Your task to perform on an android device: Open Youtube and go to the subscriptions tab Image 0: 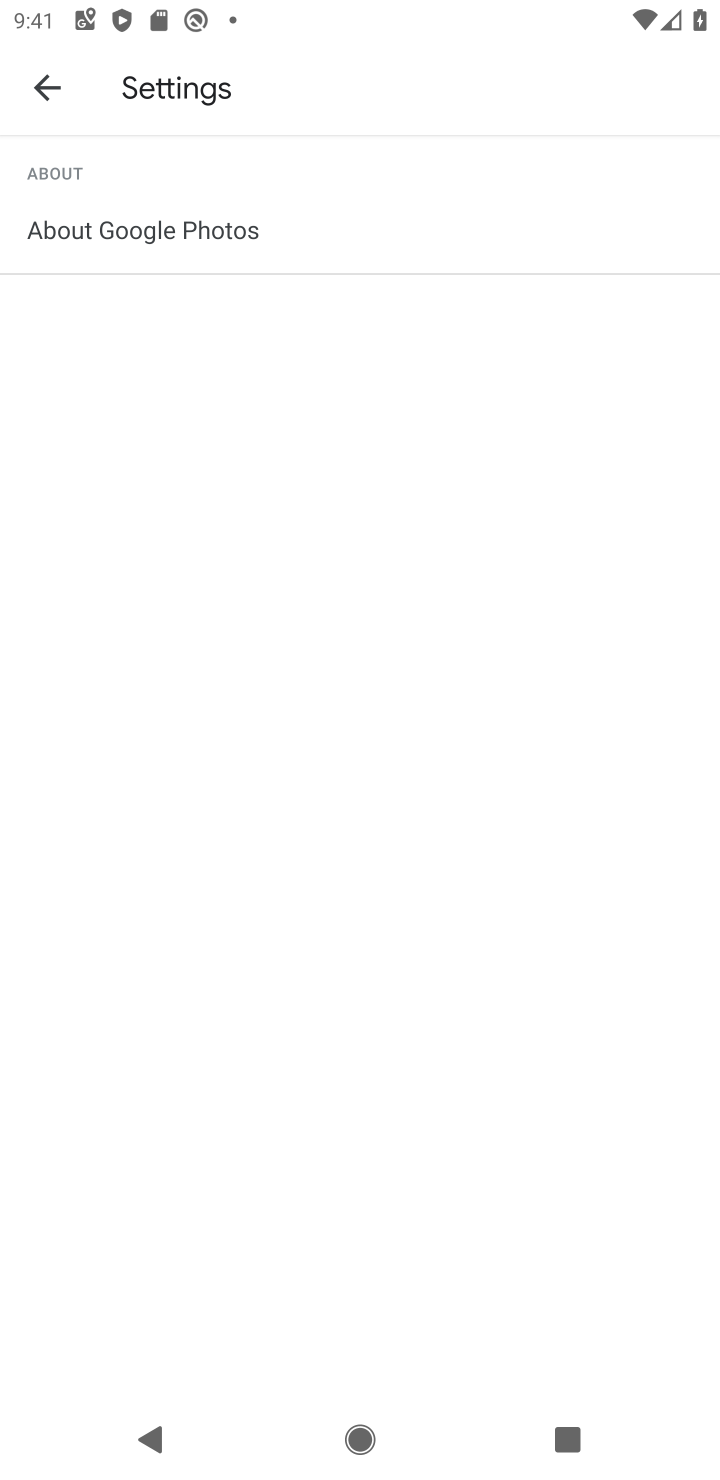
Step 0: press home button
Your task to perform on an android device: Open Youtube and go to the subscriptions tab Image 1: 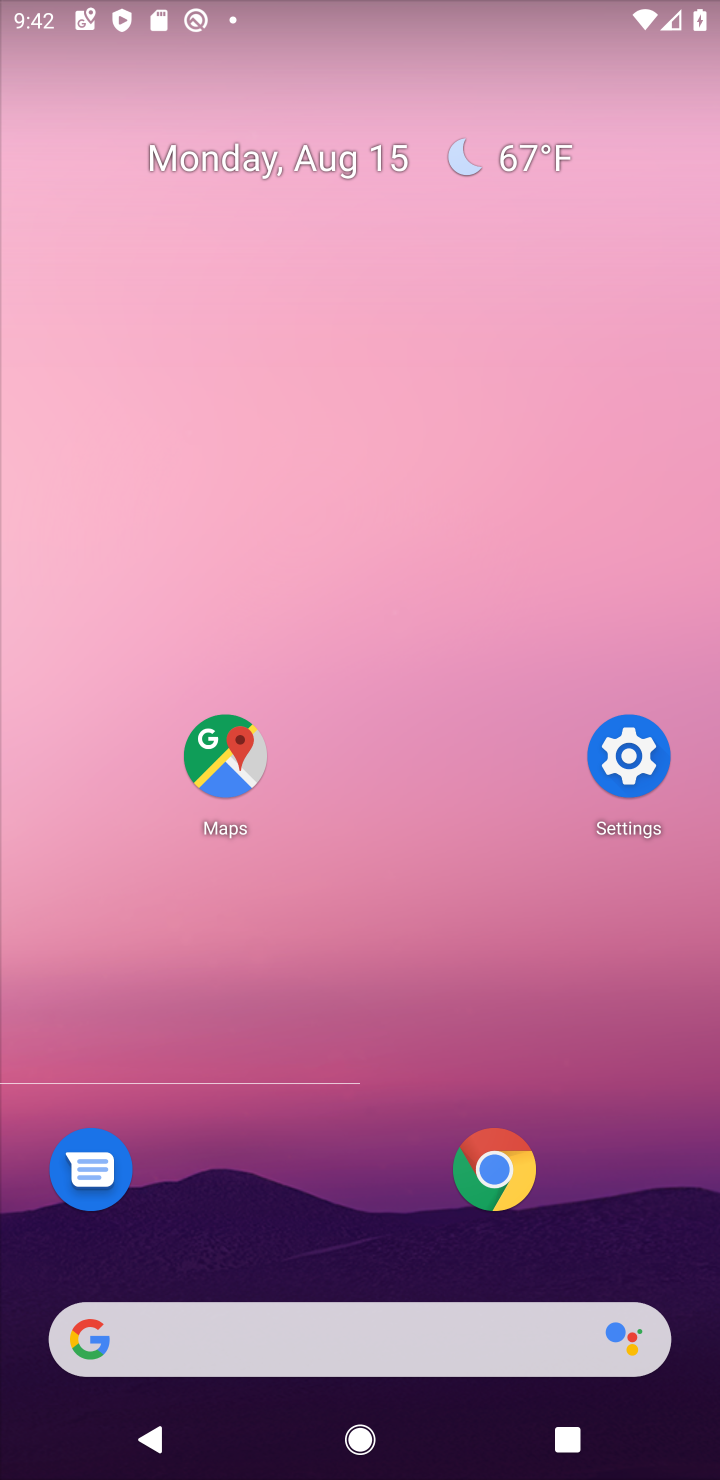
Step 1: press home button
Your task to perform on an android device: Open Youtube and go to the subscriptions tab Image 2: 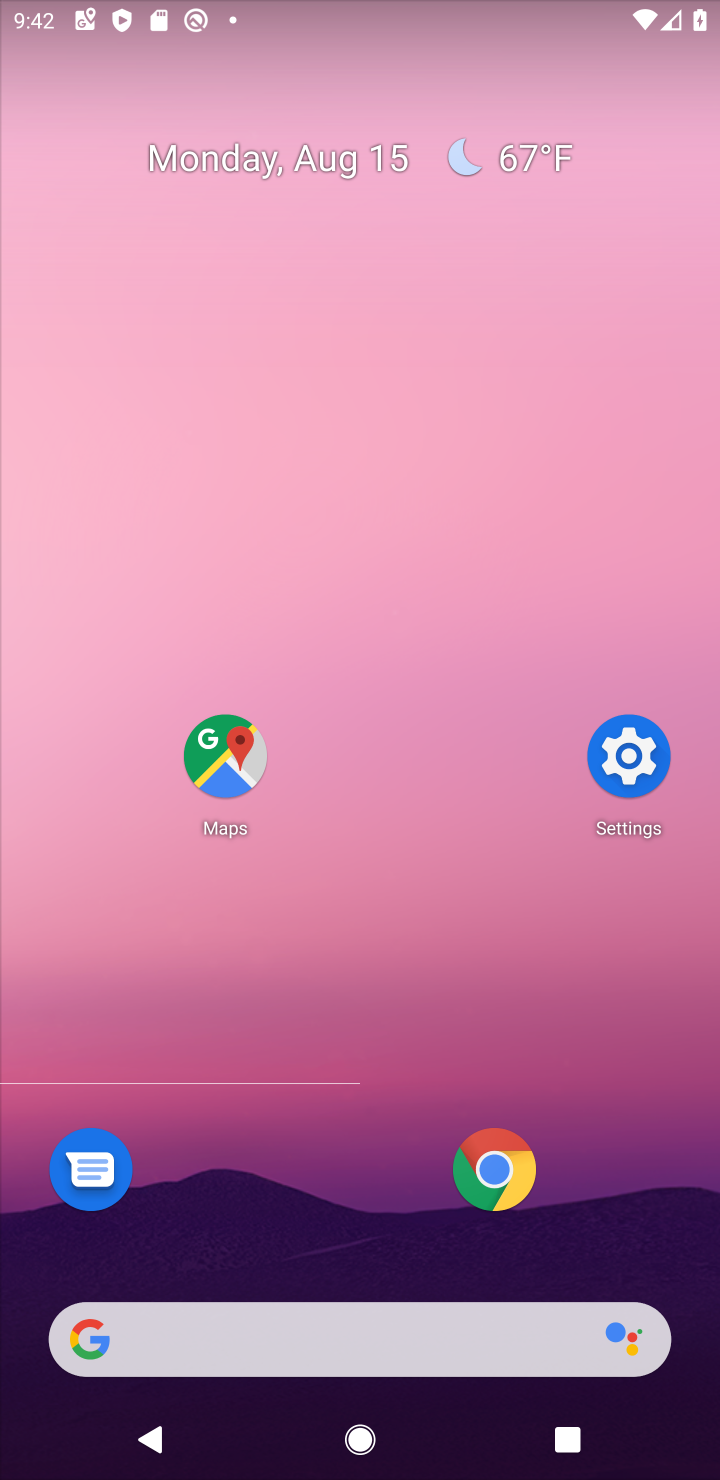
Step 2: drag from (337, 1256) to (642, 214)
Your task to perform on an android device: Open Youtube and go to the subscriptions tab Image 3: 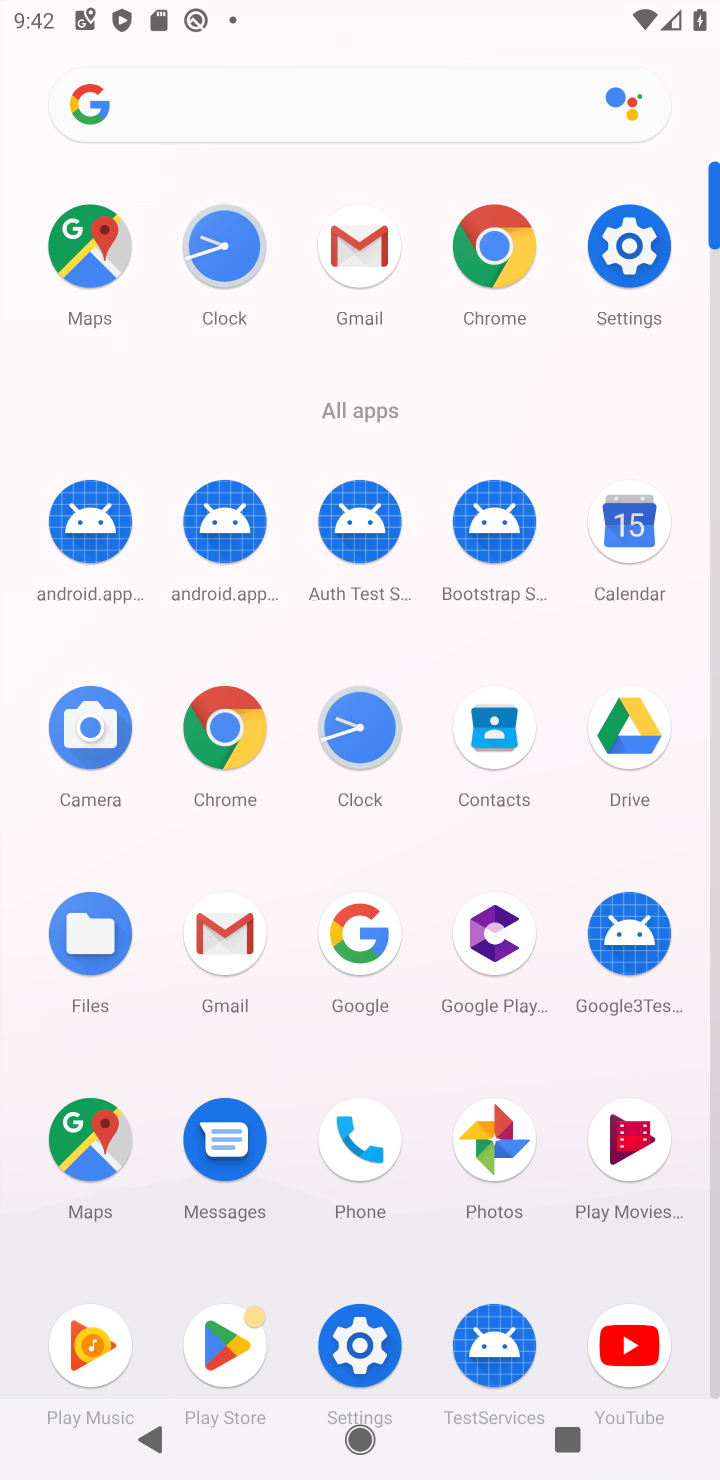
Step 3: click (633, 1349)
Your task to perform on an android device: Open Youtube and go to the subscriptions tab Image 4: 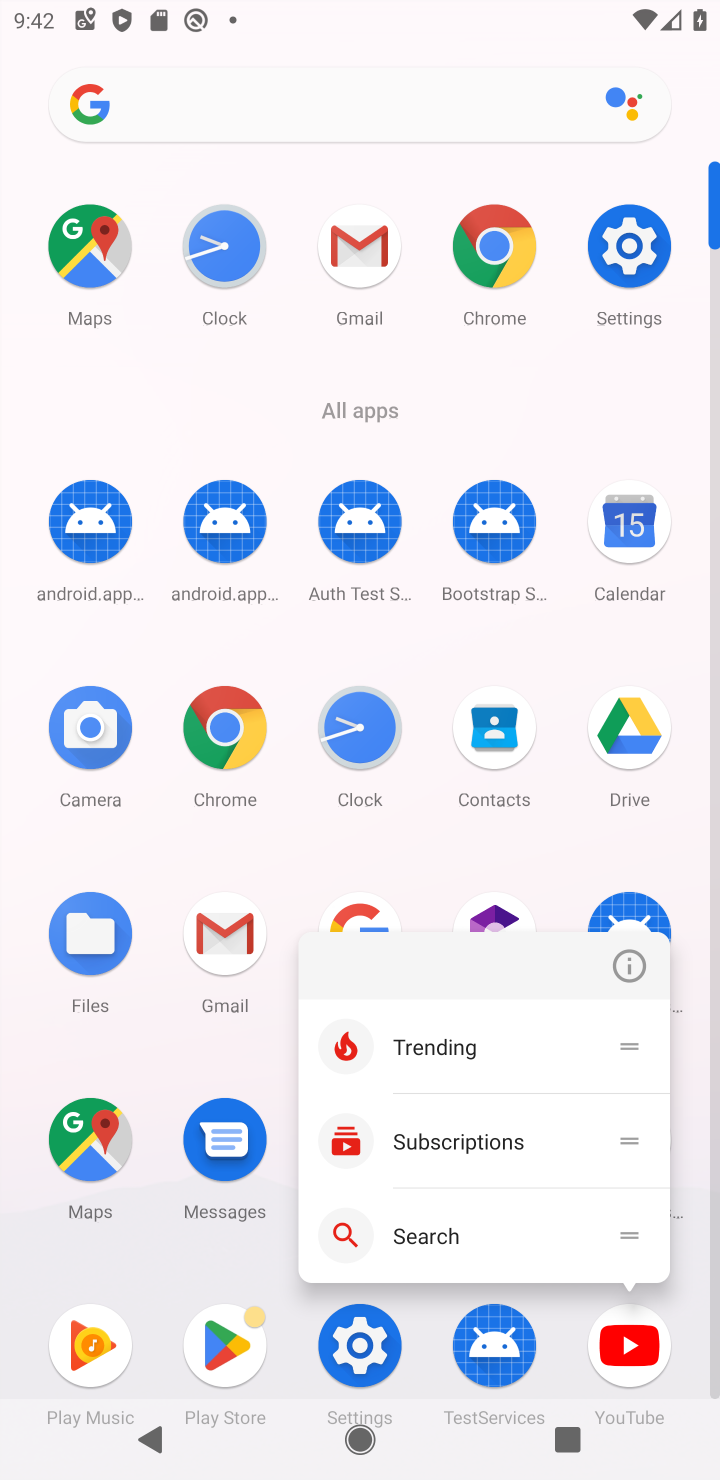
Step 4: click (633, 1349)
Your task to perform on an android device: Open Youtube and go to the subscriptions tab Image 5: 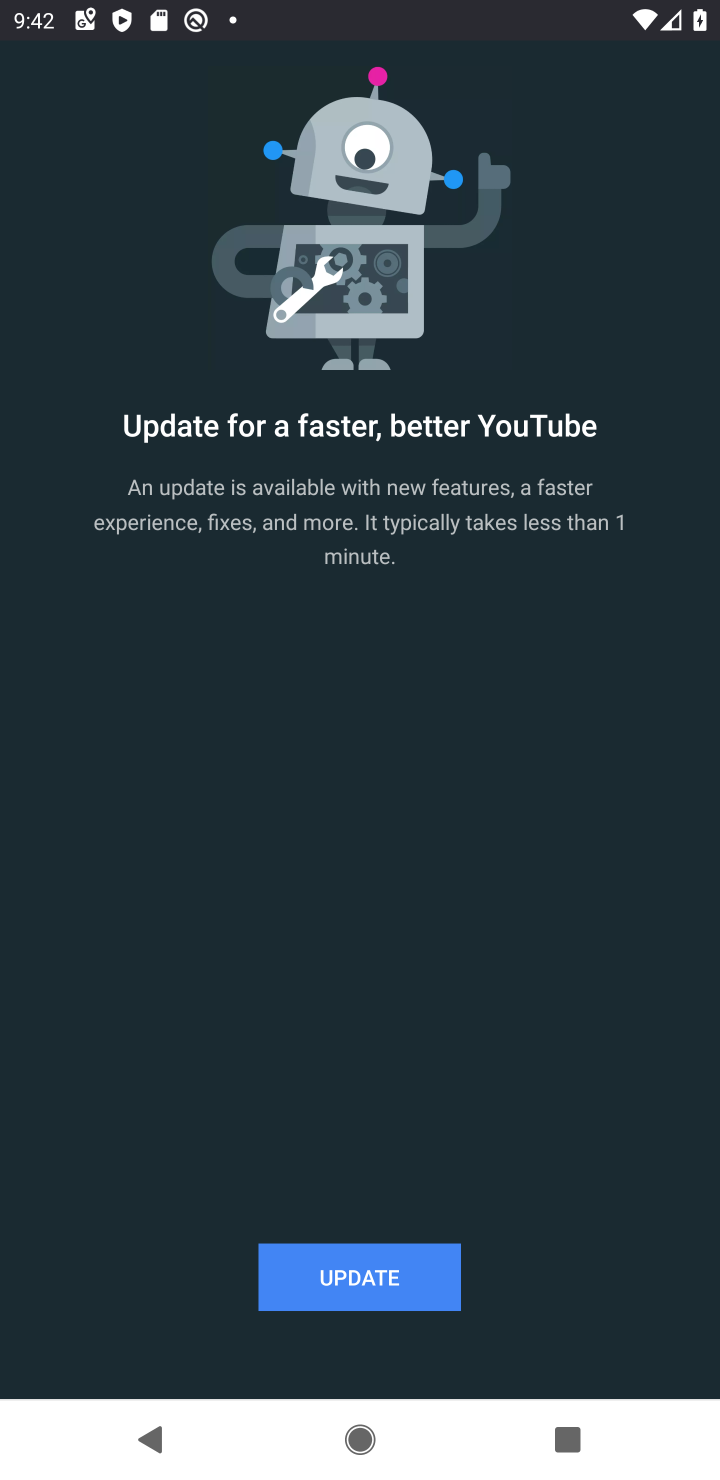
Step 5: click (376, 1281)
Your task to perform on an android device: Open Youtube and go to the subscriptions tab Image 6: 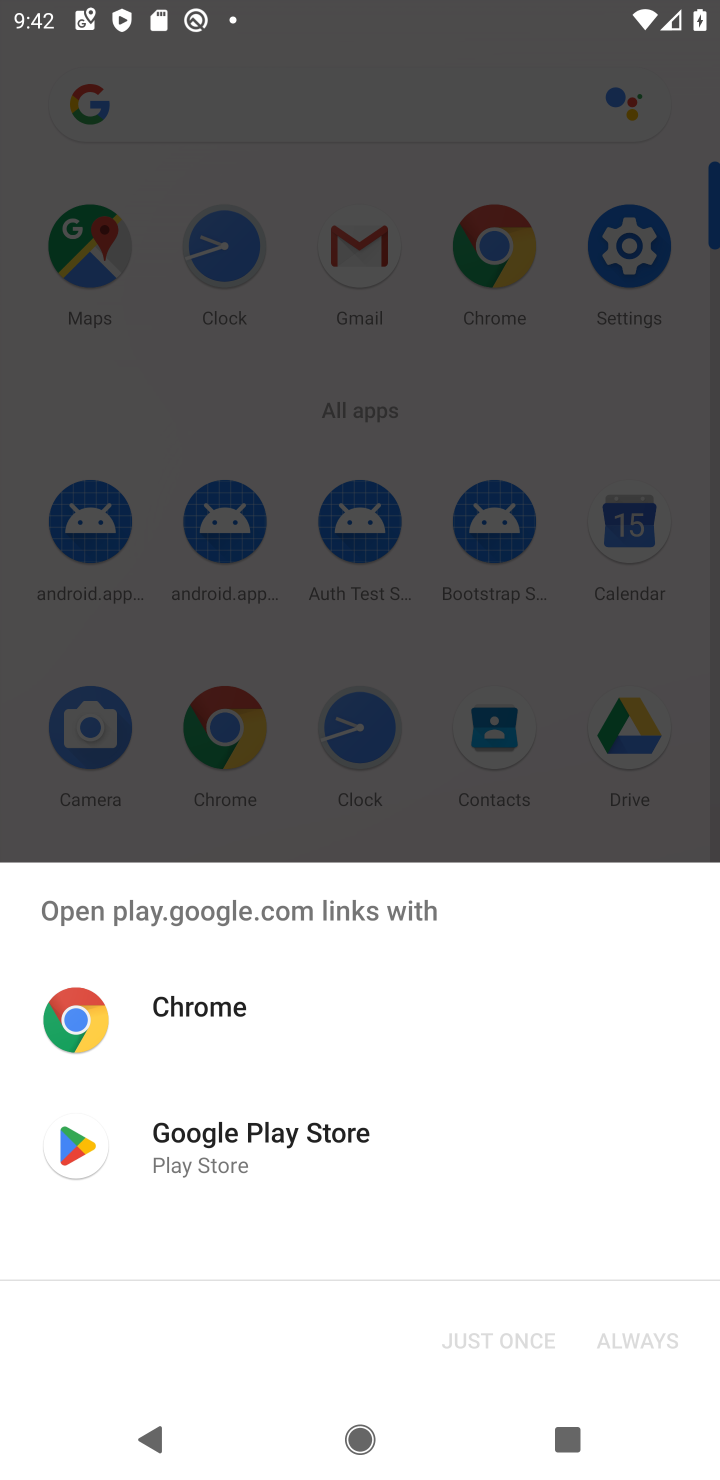
Step 6: click (301, 1137)
Your task to perform on an android device: Open Youtube and go to the subscriptions tab Image 7: 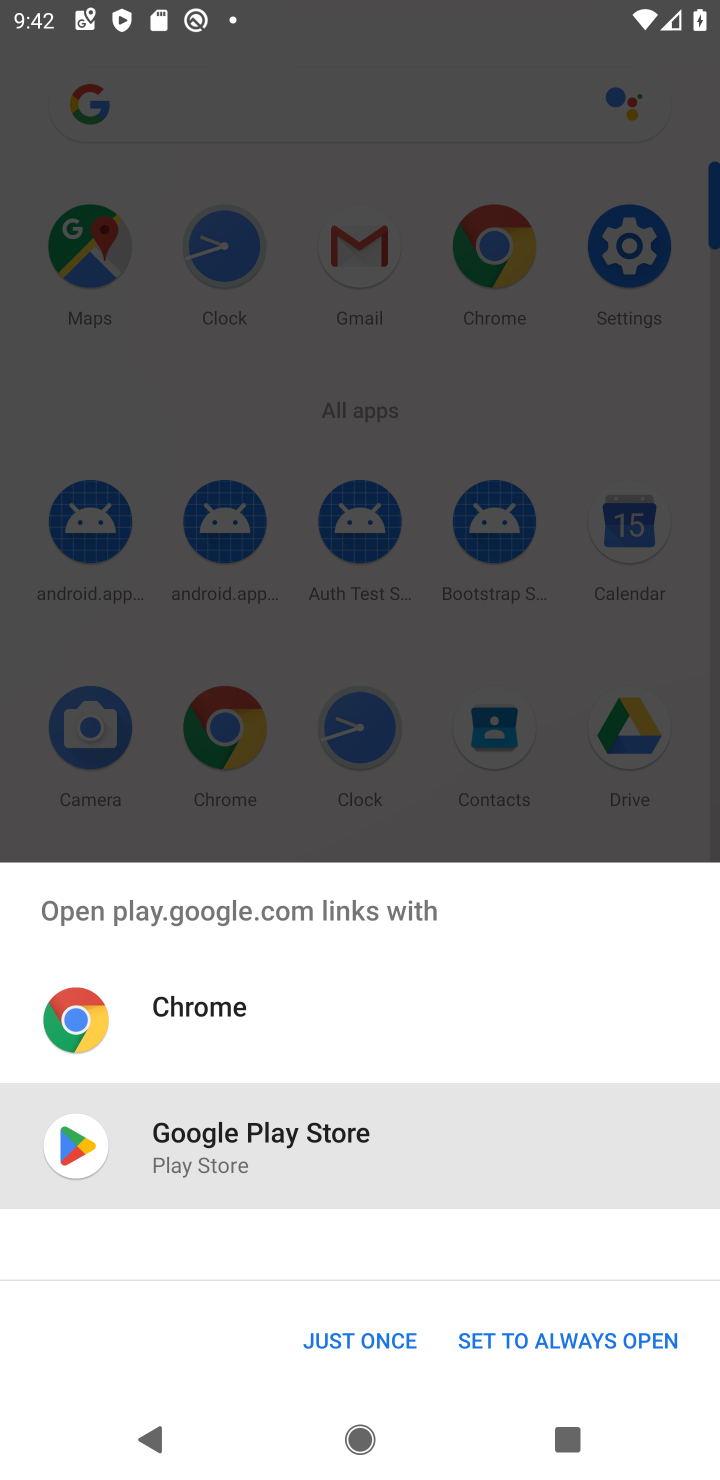
Step 7: click (383, 1334)
Your task to perform on an android device: Open Youtube and go to the subscriptions tab Image 8: 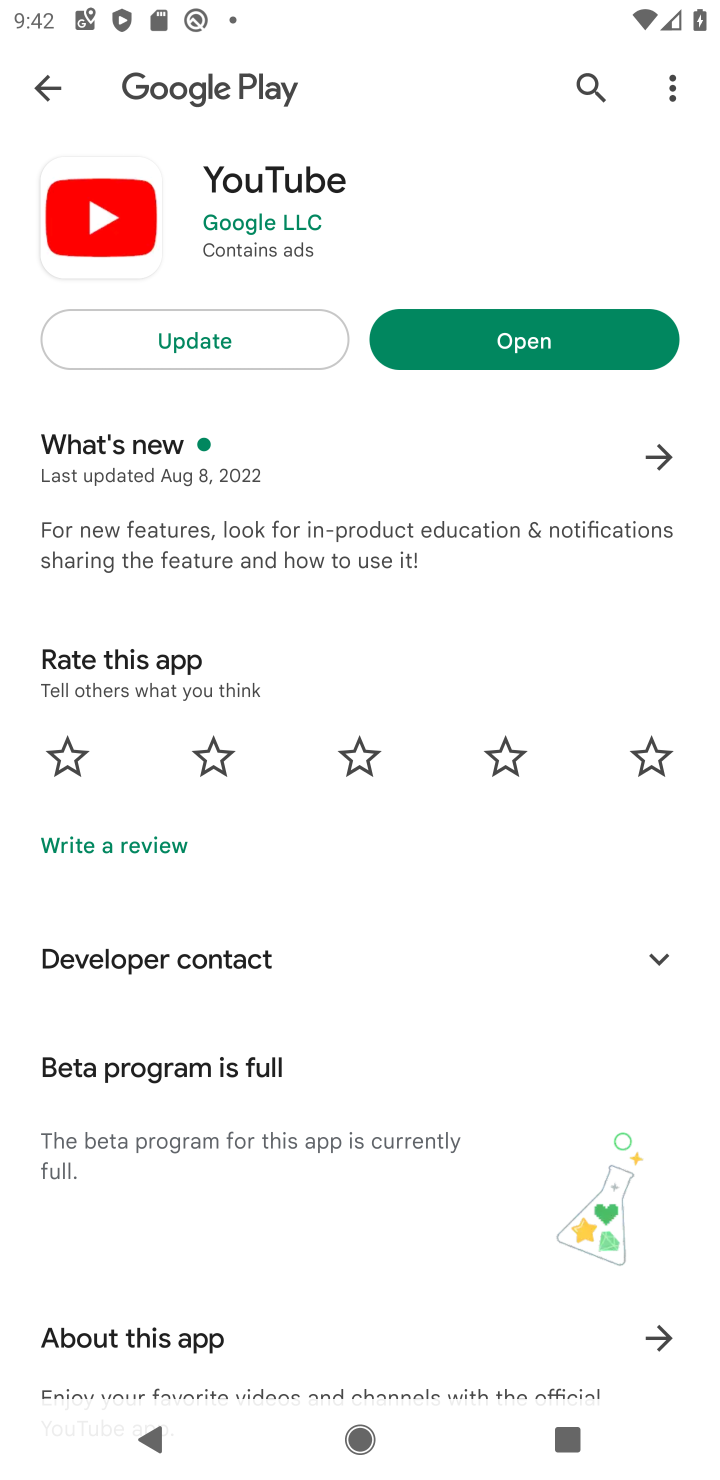
Step 8: click (542, 337)
Your task to perform on an android device: Open Youtube and go to the subscriptions tab Image 9: 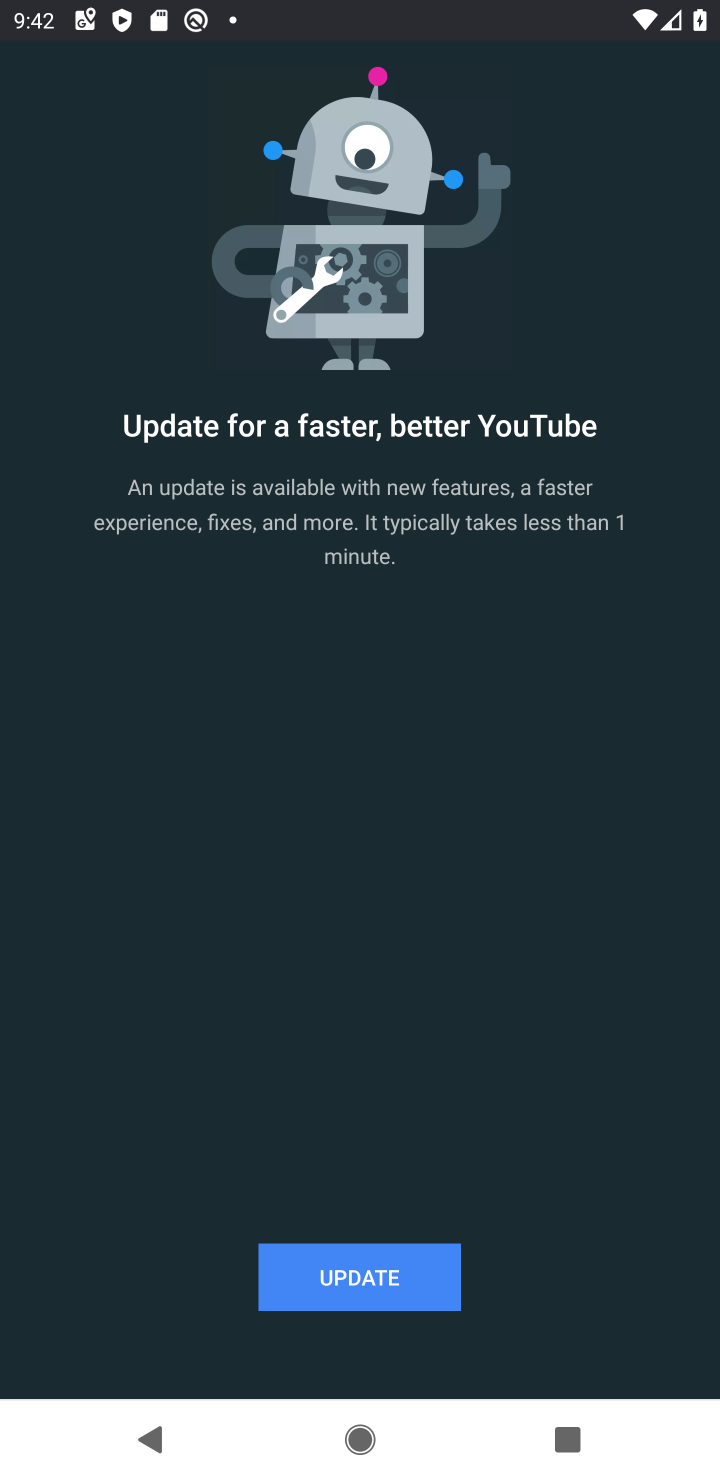
Step 9: click (396, 1282)
Your task to perform on an android device: Open Youtube and go to the subscriptions tab Image 10: 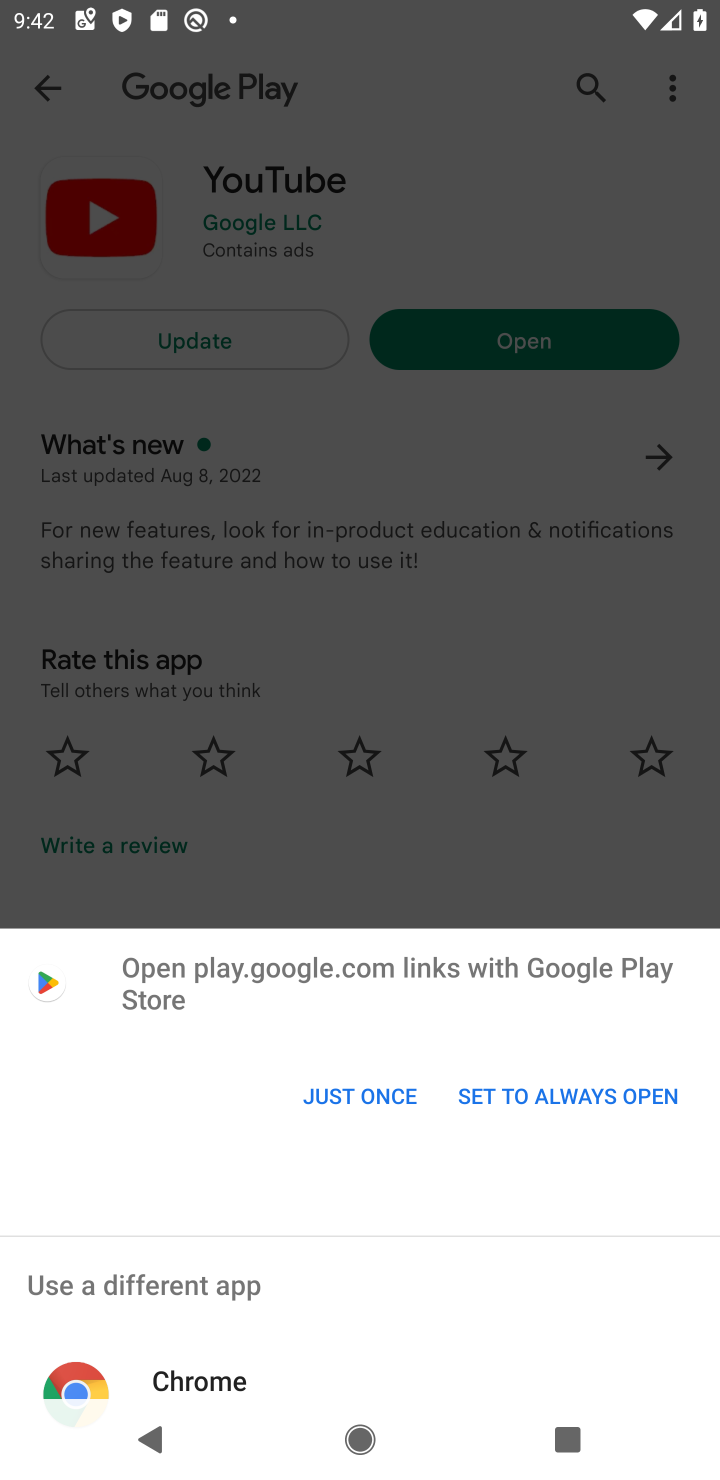
Step 10: click (334, 1086)
Your task to perform on an android device: Open Youtube and go to the subscriptions tab Image 11: 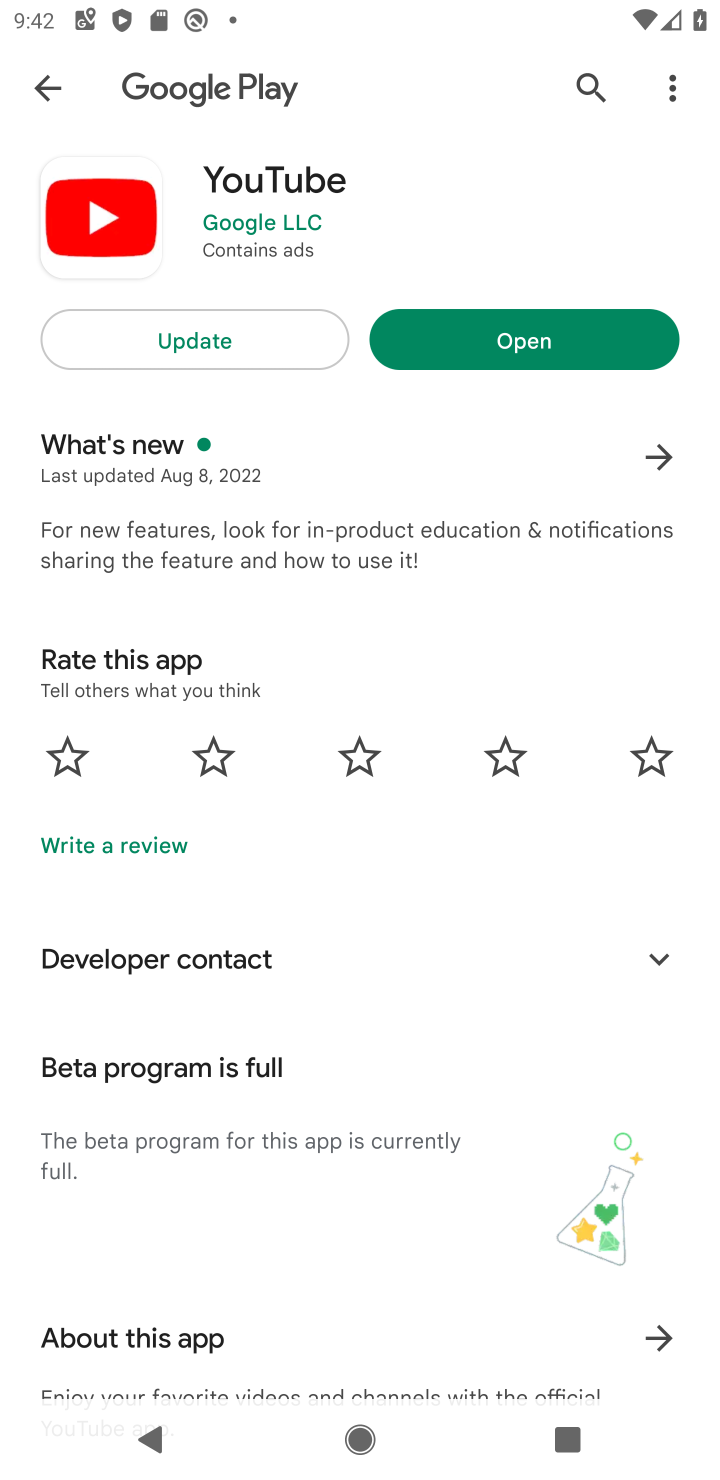
Step 11: click (229, 334)
Your task to perform on an android device: Open Youtube and go to the subscriptions tab Image 12: 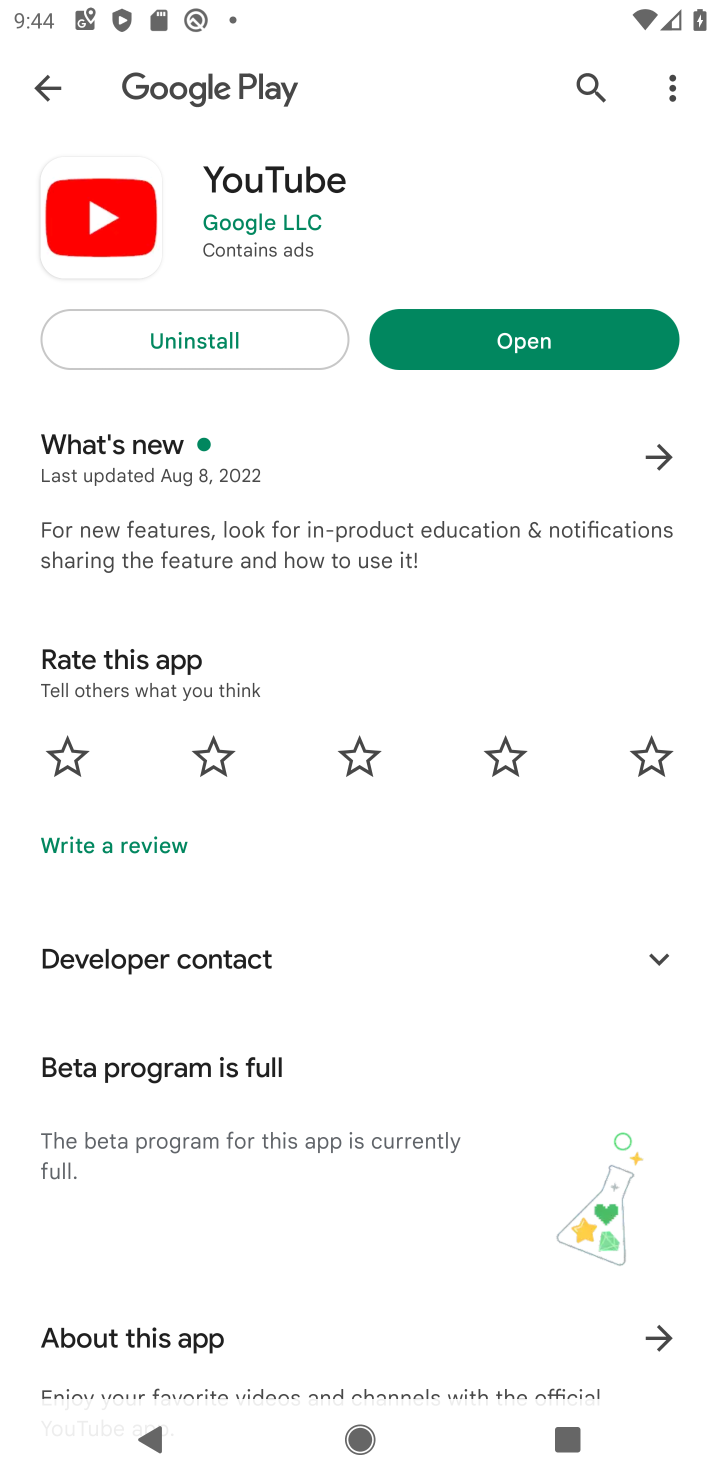
Step 12: click (510, 335)
Your task to perform on an android device: Open Youtube and go to the subscriptions tab Image 13: 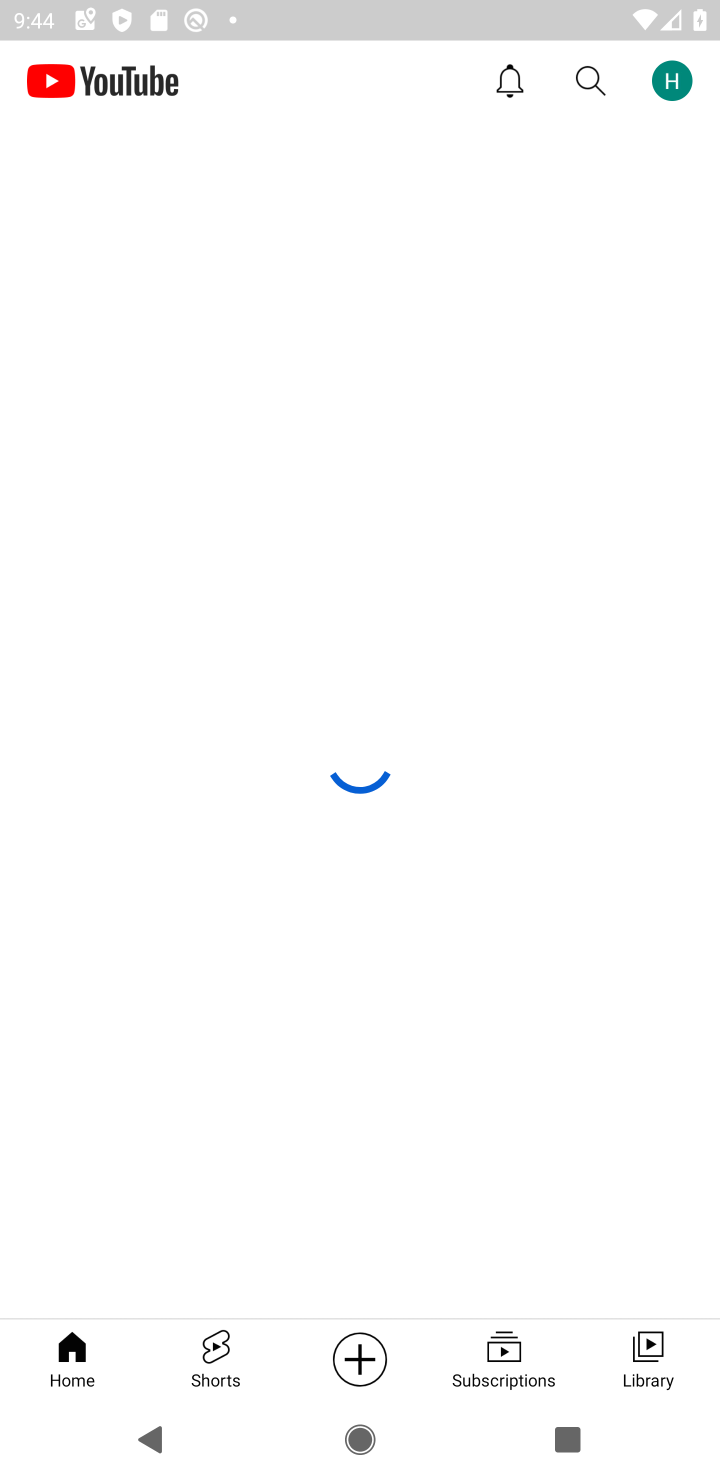
Step 13: click (515, 1365)
Your task to perform on an android device: Open Youtube and go to the subscriptions tab Image 14: 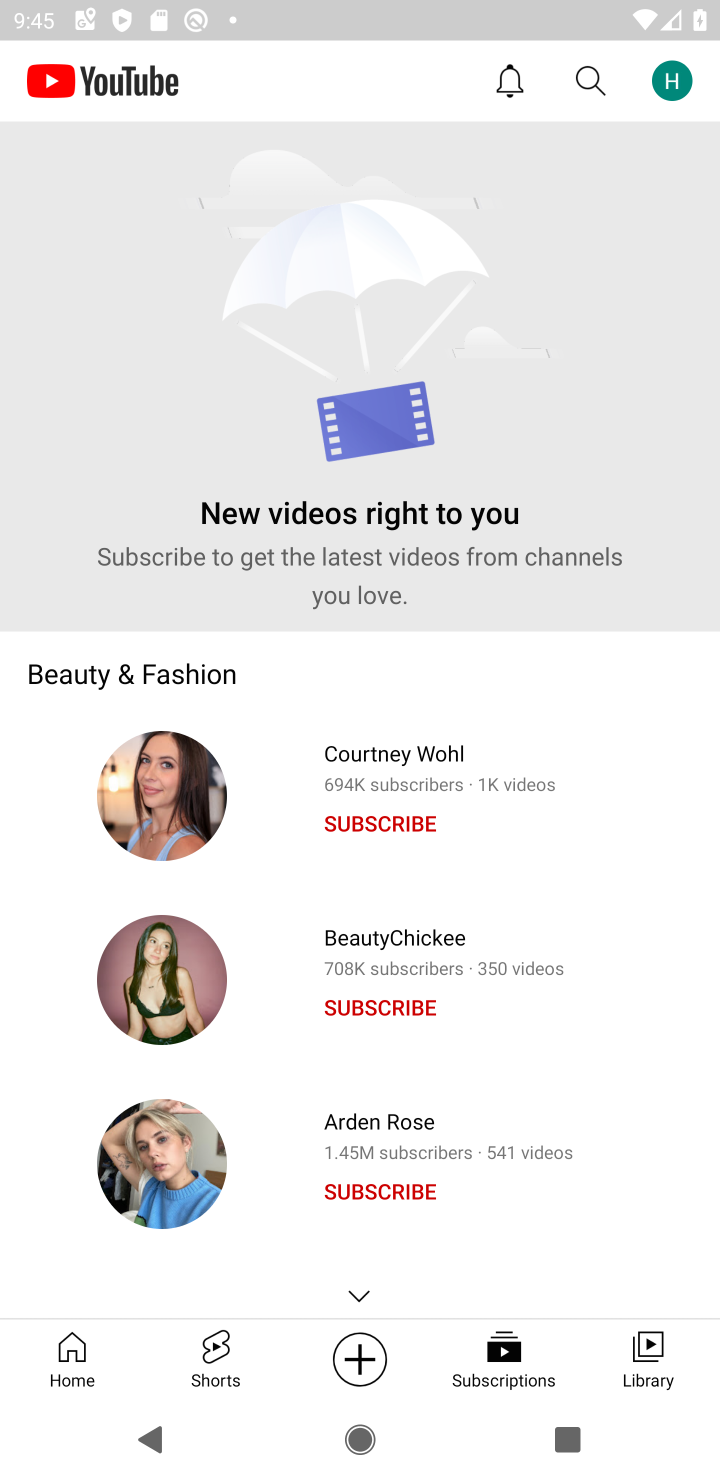
Step 14: task complete